Your task to perform on an android device: Open my contact list Image 0: 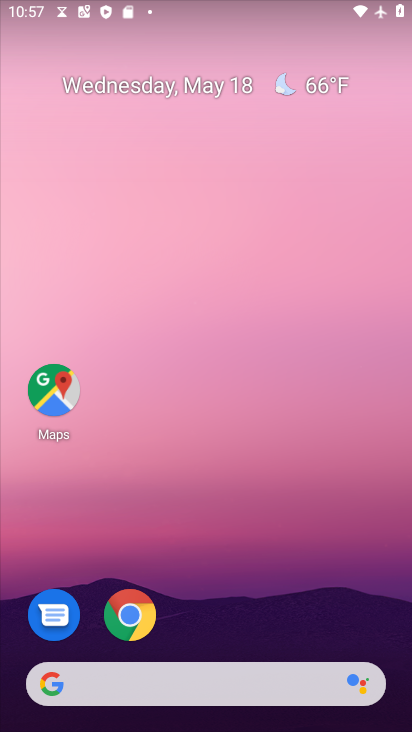
Step 0: drag from (240, 529) to (222, 27)
Your task to perform on an android device: Open my contact list Image 1: 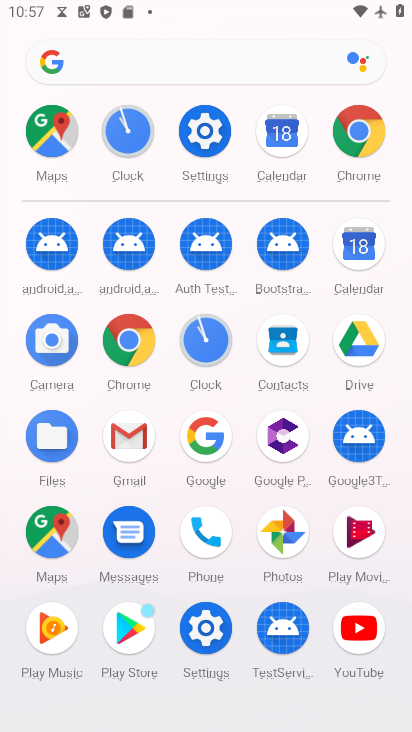
Step 1: drag from (0, 557) to (16, 209)
Your task to perform on an android device: Open my contact list Image 2: 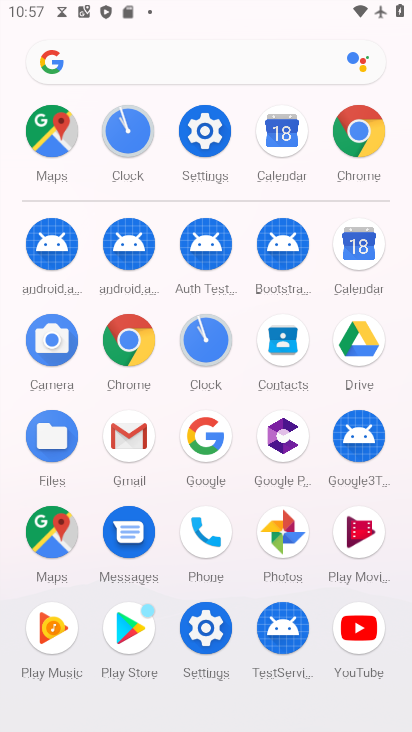
Step 2: click (280, 335)
Your task to perform on an android device: Open my contact list Image 3: 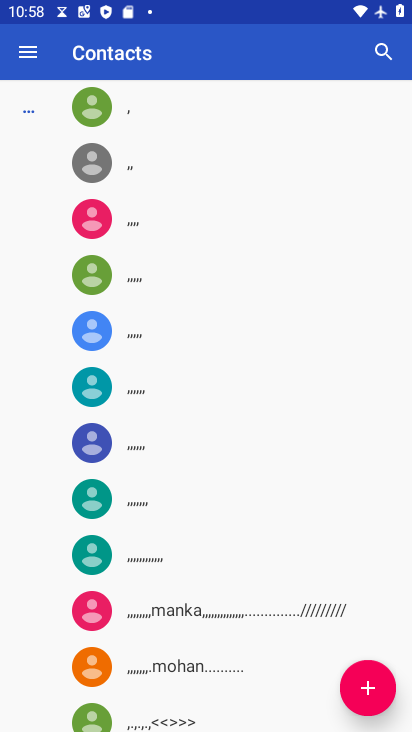
Step 3: task complete